Your task to perform on an android device: open the mobile data screen to see how much data has been used Image 0: 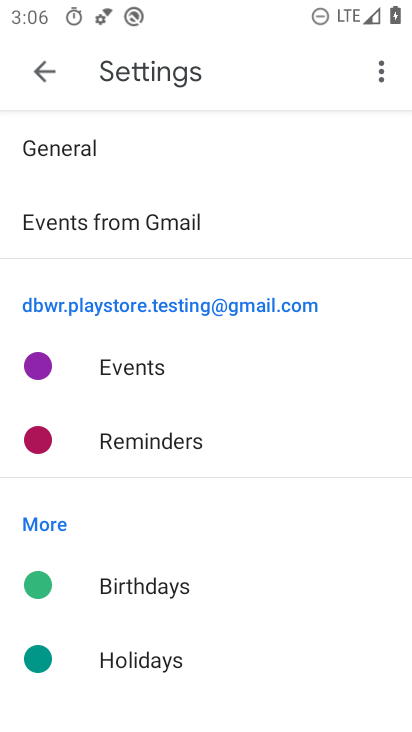
Step 0: press back button
Your task to perform on an android device: open the mobile data screen to see how much data has been used Image 1: 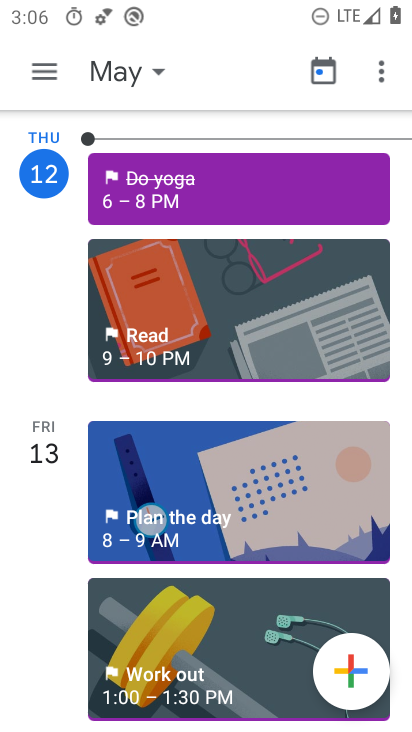
Step 1: press home button
Your task to perform on an android device: open the mobile data screen to see how much data has been used Image 2: 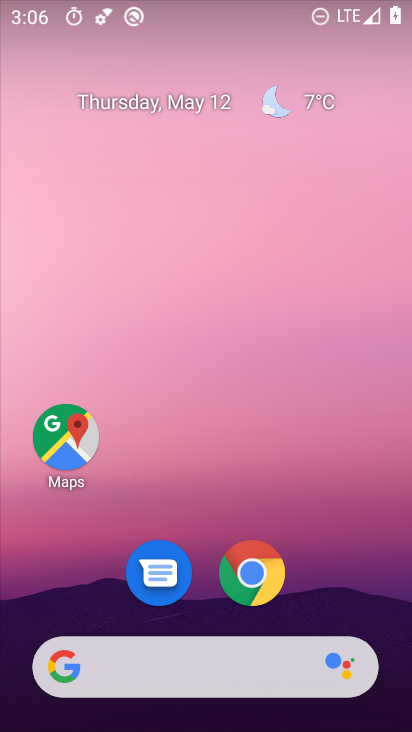
Step 2: drag from (340, 607) to (133, 46)
Your task to perform on an android device: open the mobile data screen to see how much data has been used Image 3: 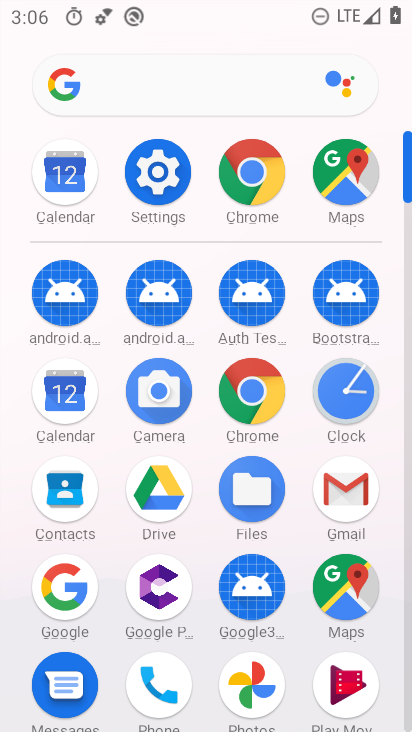
Step 3: click (165, 184)
Your task to perform on an android device: open the mobile data screen to see how much data has been used Image 4: 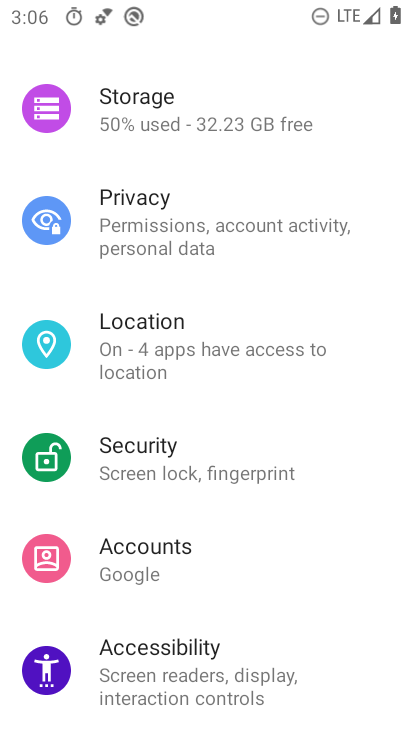
Step 4: drag from (175, 184) to (187, 473)
Your task to perform on an android device: open the mobile data screen to see how much data has been used Image 5: 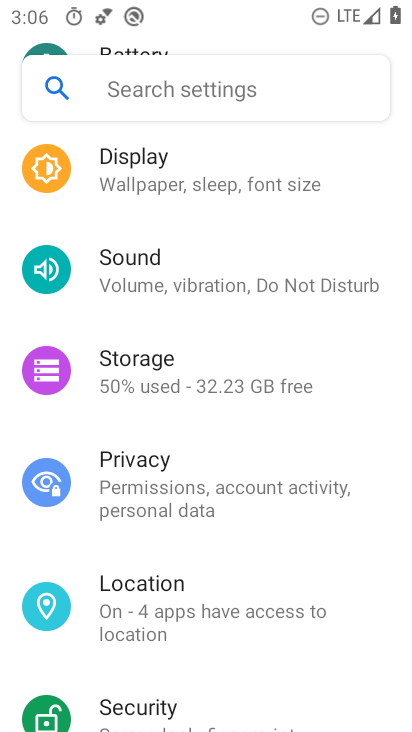
Step 5: drag from (179, 227) to (222, 512)
Your task to perform on an android device: open the mobile data screen to see how much data has been used Image 6: 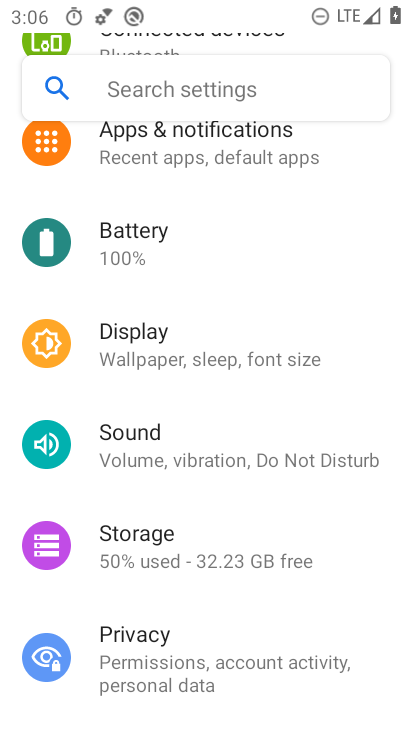
Step 6: drag from (193, 405) to (254, 708)
Your task to perform on an android device: open the mobile data screen to see how much data has been used Image 7: 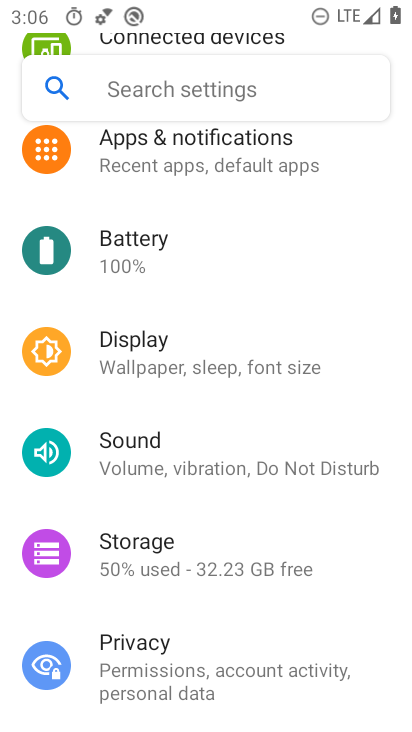
Step 7: drag from (177, 260) to (181, 620)
Your task to perform on an android device: open the mobile data screen to see how much data has been used Image 8: 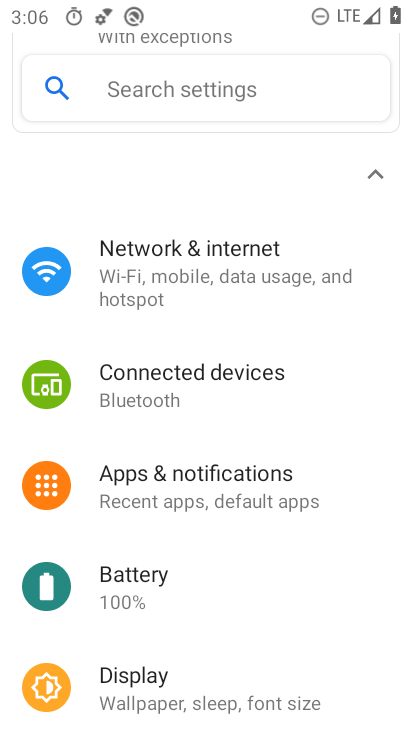
Step 8: drag from (147, 257) to (154, 630)
Your task to perform on an android device: open the mobile data screen to see how much data has been used Image 9: 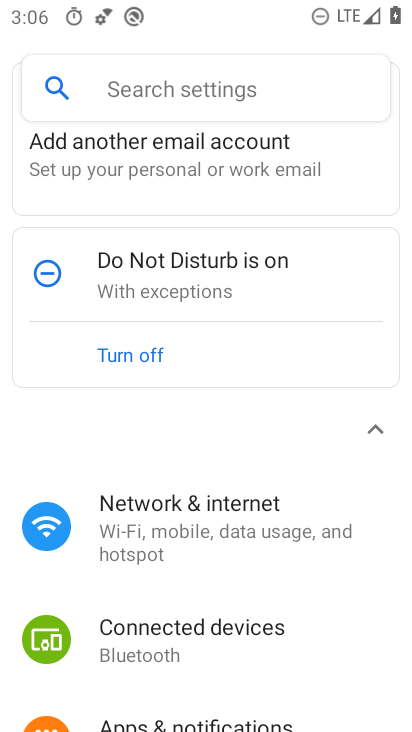
Step 9: drag from (125, 322) to (198, 581)
Your task to perform on an android device: open the mobile data screen to see how much data has been used Image 10: 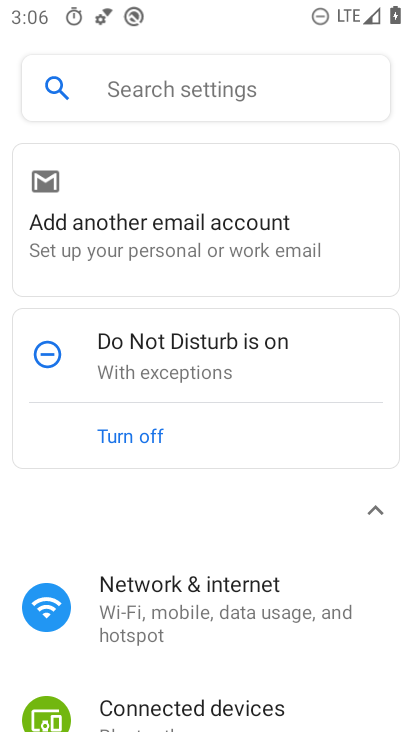
Step 10: drag from (239, 581) to (202, 350)
Your task to perform on an android device: open the mobile data screen to see how much data has been used Image 11: 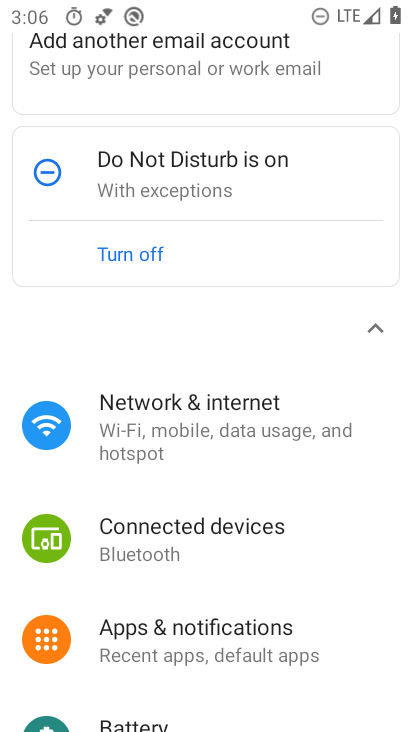
Step 11: drag from (290, 616) to (251, 265)
Your task to perform on an android device: open the mobile data screen to see how much data has been used Image 12: 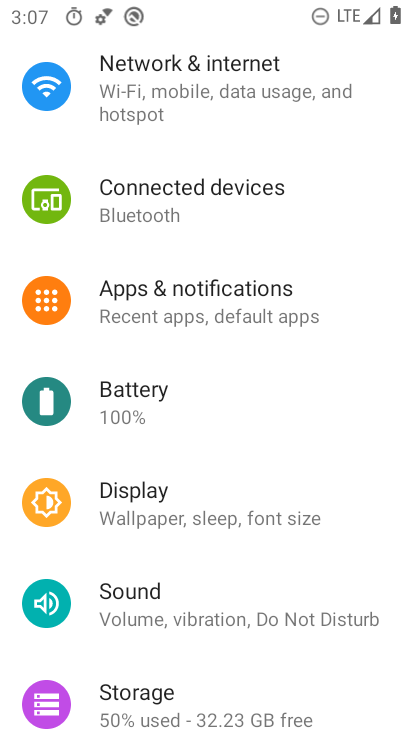
Step 12: click (169, 77)
Your task to perform on an android device: open the mobile data screen to see how much data has been used Image 13: 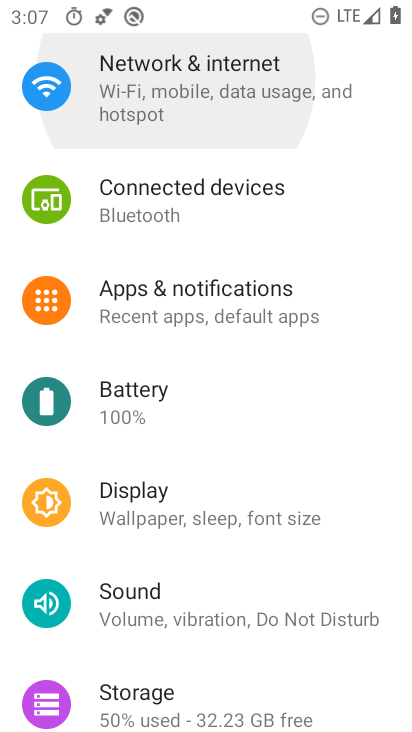
Step 13: click (169, 77)
Your task to perform on an android device: open the mobile data screen to see how much data has been used Image 14: 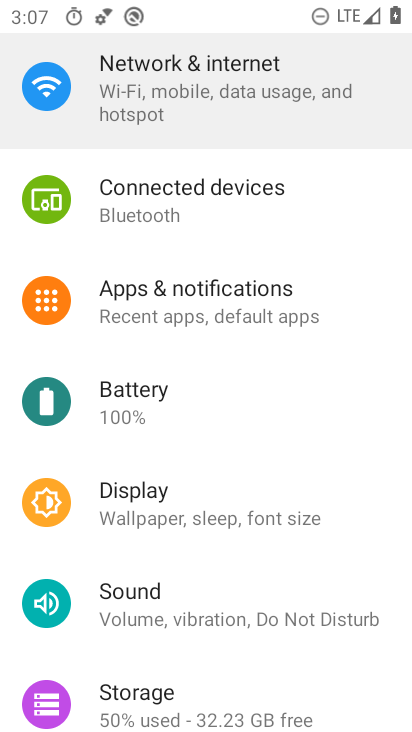
Step 14: click (171, 78)
Your task to perform on an android device: open the mobile data screen to see how much data has been used Image 15: 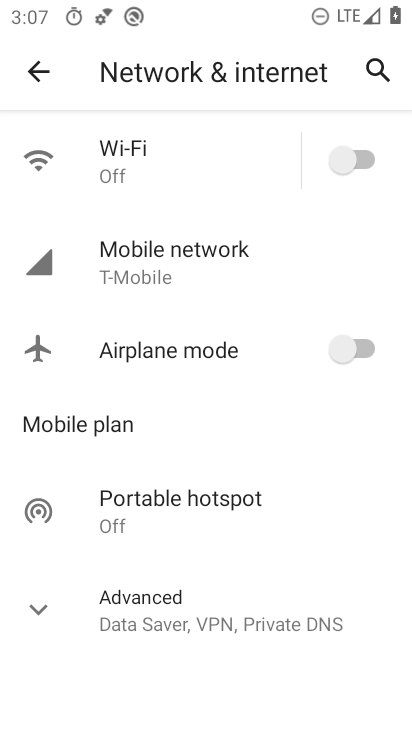
Step 15: click (341, 154)
Your task to perform on an android device: open the mobile data screen to see how much data has been used Image 16: 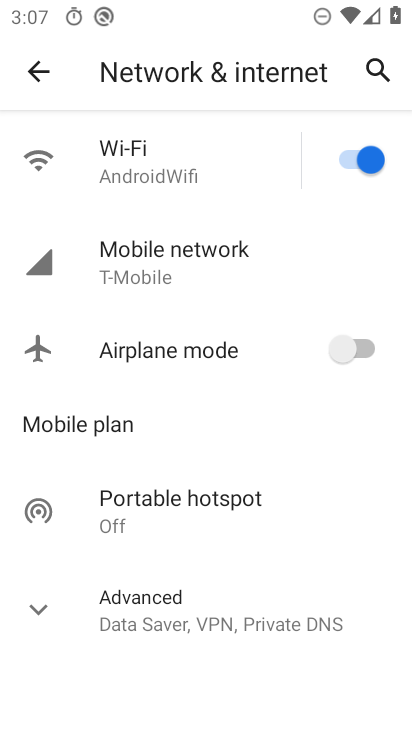
Step 16: click (361, 152)
Your task to perform on an android device: open the mobile data screen to see how much data has been used Image 17: 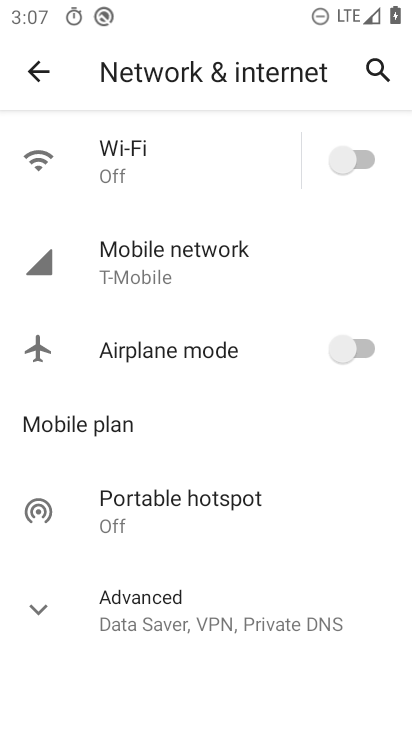
Step 17: task complete